Your task to perform on an android device: Open internet settings Image 0: 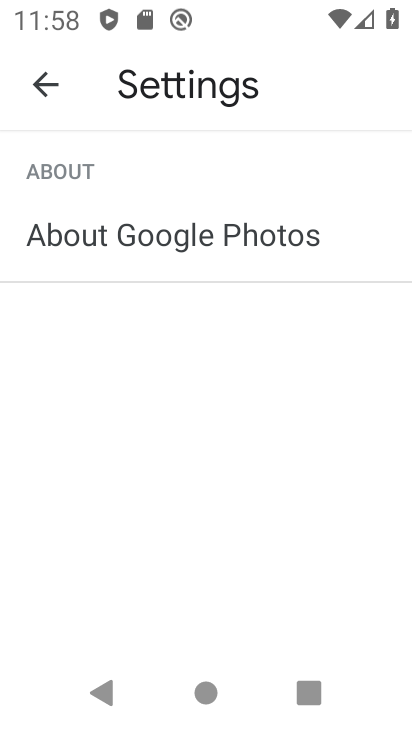
Step 0: press home button
Your task to perform on an android device: Open internet settings Image 1: 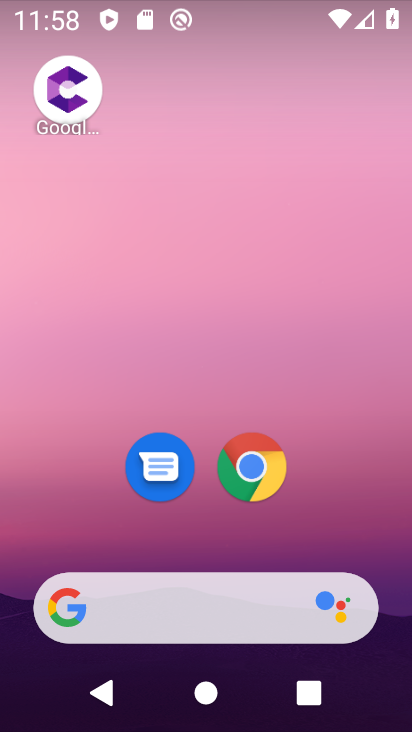
Step 1: drag from (392, 615) to (346, 141)
Your task to perform on an android device: Open internet settings Image 2: 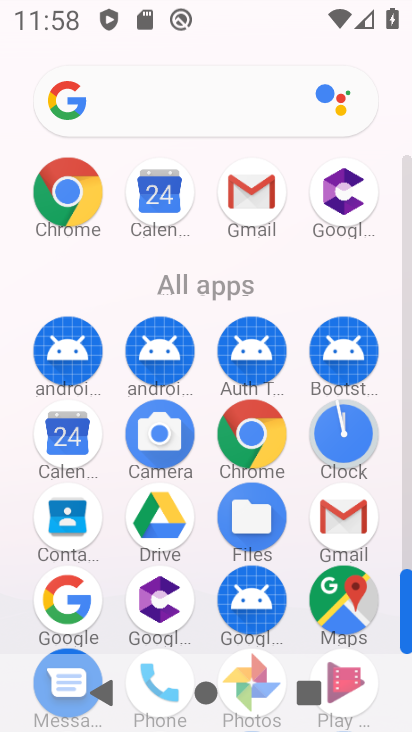
Step 2: drag from (408, 556) to (409, 501)
Your task to perform on an android device: Open internet settings Image 3: 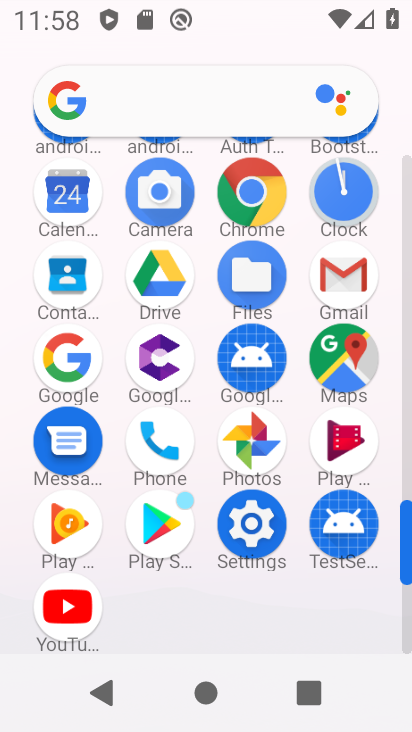
Step 3: click (251, 526)
Your task to perform on an android device: Open internet settings Image 4: 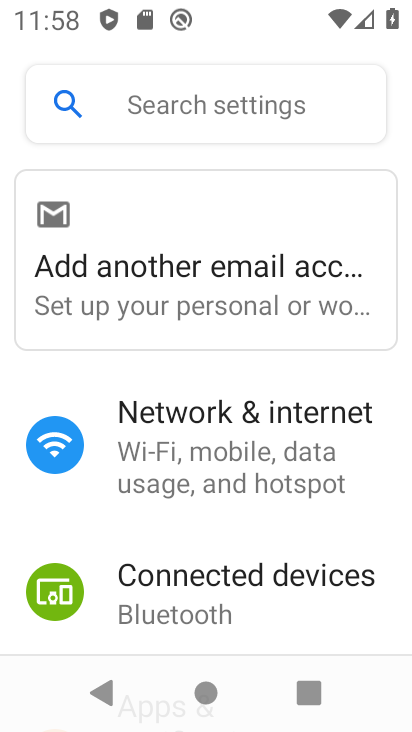
Step 4: click (206, 451)
Your task to perform on an android device: Open internet settings Image 5: 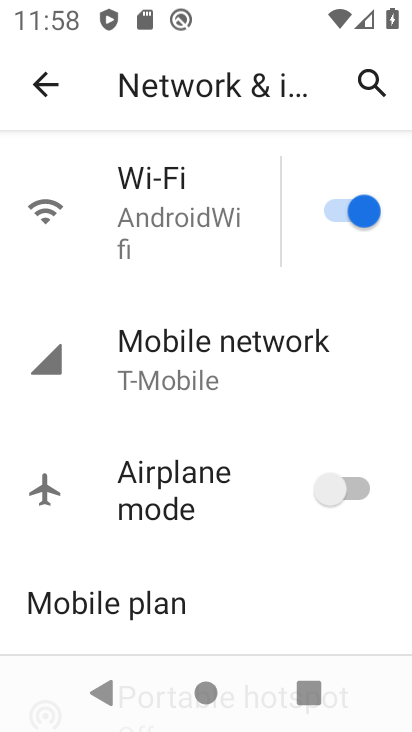
Step 5: click (165, 338)
Your task to perform on an android device: Open internet settings Image 6: 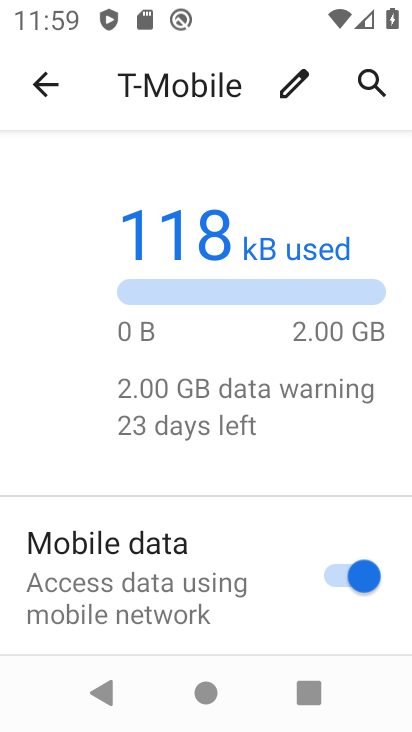
Step 6: task complete